Your task to perform on an android device: open wifi settings Image 0: 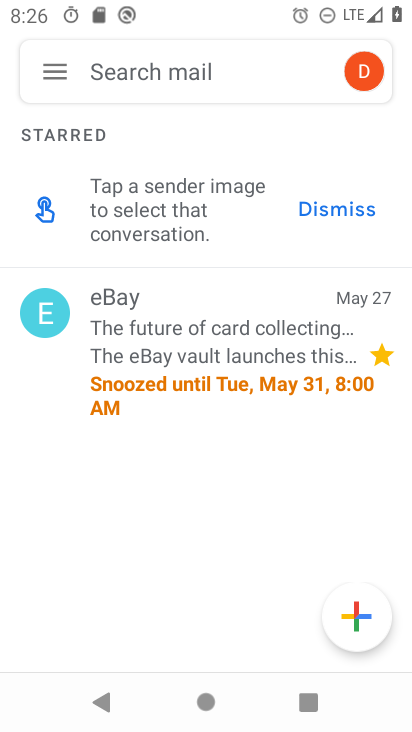
Step 0: press home button
Your task to perform on an android device: open wifi settings Image 1: 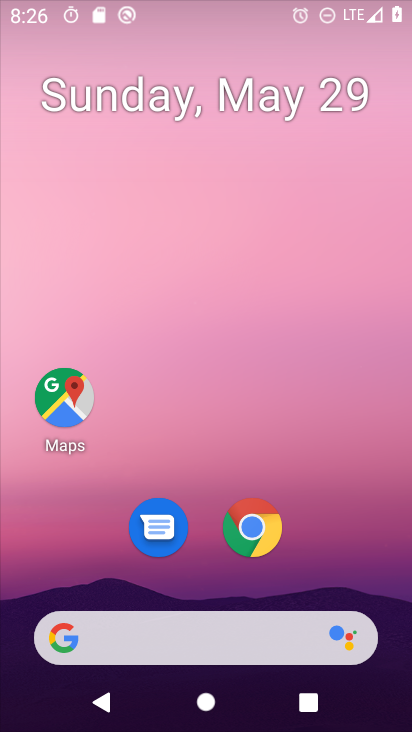
Step 1: drag from (394, 648) to (277, 17)
Your task to perform on an android device: open wifi settings Image 2: 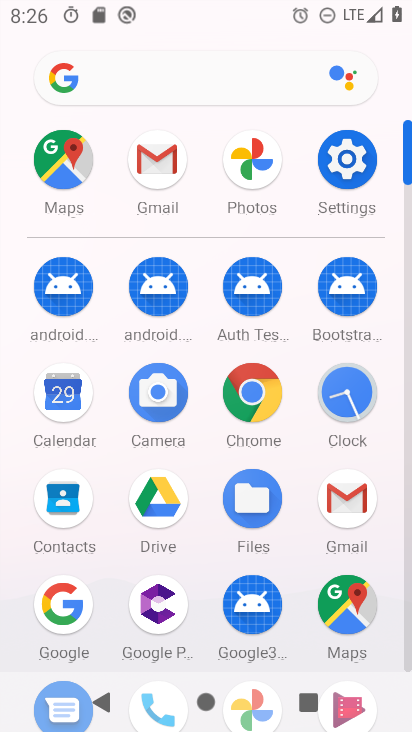
Step 2: click (348, 157)
Your task to perform on an android device: open wifi settings Image 3: 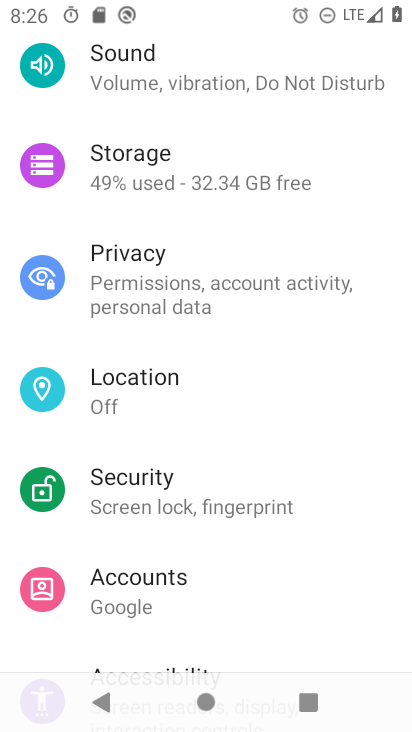
Step 3: drag from (305, 169) to (324, 675)
Your task to perform on an android device: open wifi settings Image 4: 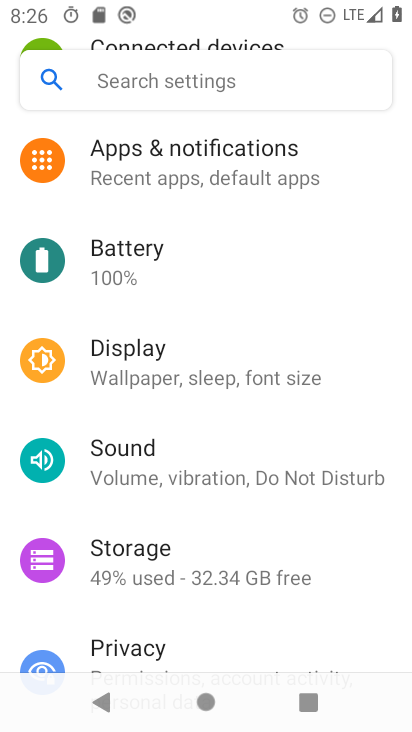
Step 4: drag from (242, 182) to (253, 573)
Your task to perform on an android device: open wifi settings Image 5: 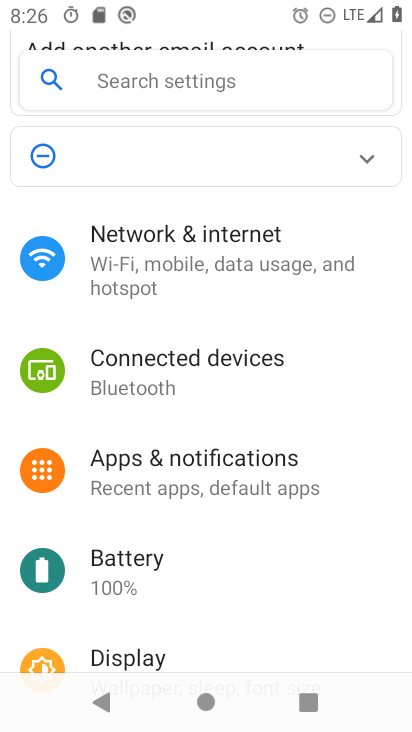
Step 5: drag from (279, 289) to (276, 547)
Your task to perform on an android device: open wifi settings Image 6: 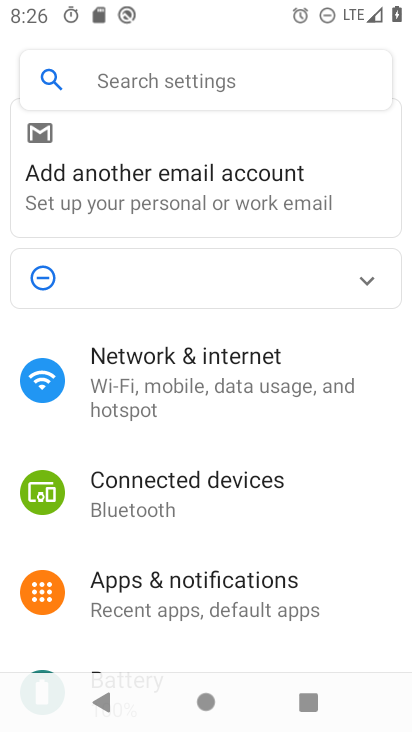
Step 6: click (206, 375)
Your task to perform on an android device: open wifi settings Image 7: 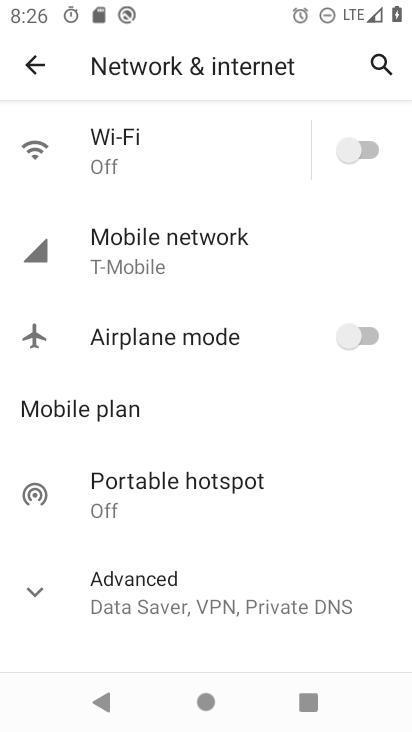
Step 7: click (136, 158)
Your task to perform on an android device: open wifi settings Image 8: 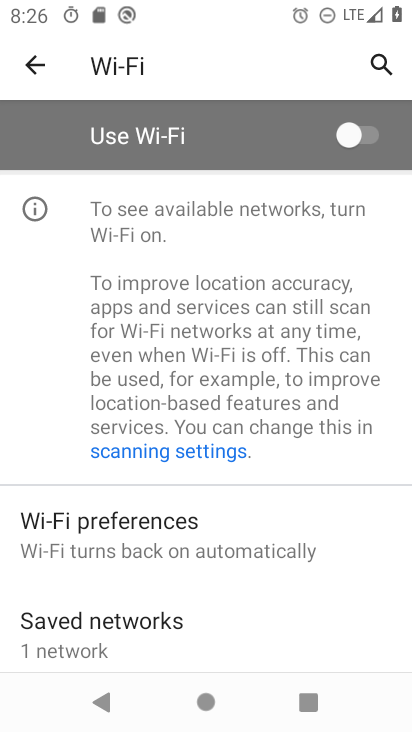
Step 8: task complete